Your task to perform on an android device: Go to battery settings Image 0: 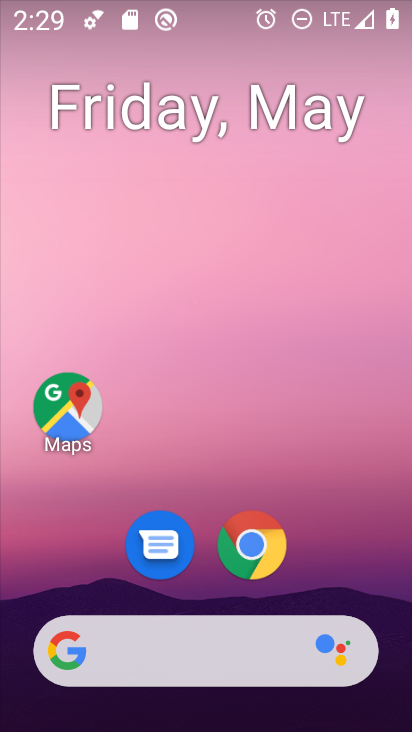
Step 0: drag from (332, 571) to (289, 248)
Your task to perform on an android device: Go to battery settings Image 1: 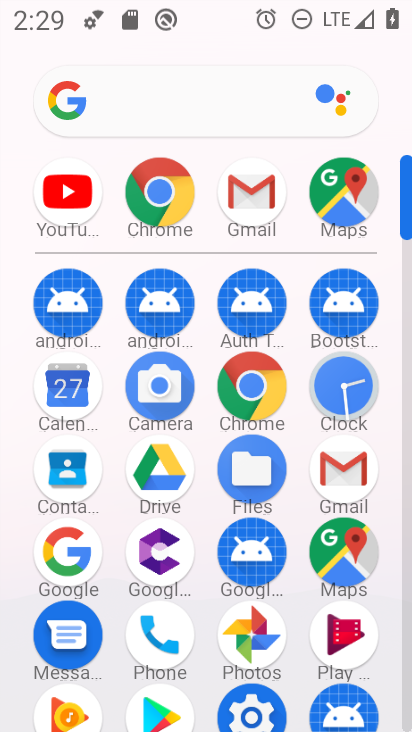
Step 1: click (255, 699)
Your task to perform on an android device: Go to battery settings Image 2: 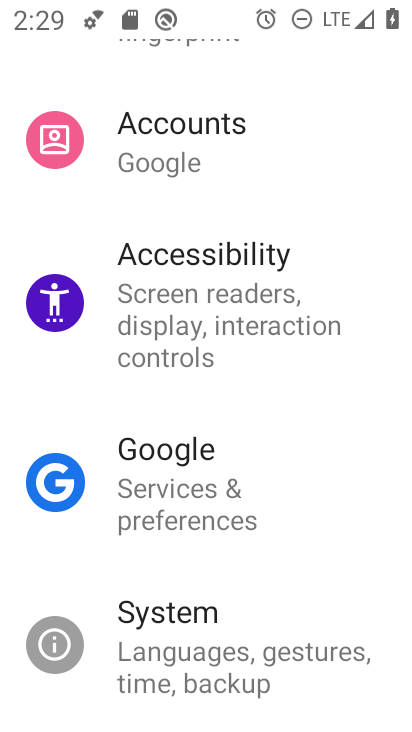
Step 2: drag from (244, 201) to (277, 589)
Your task to perform on an android device: Go to battery settings Image 3: 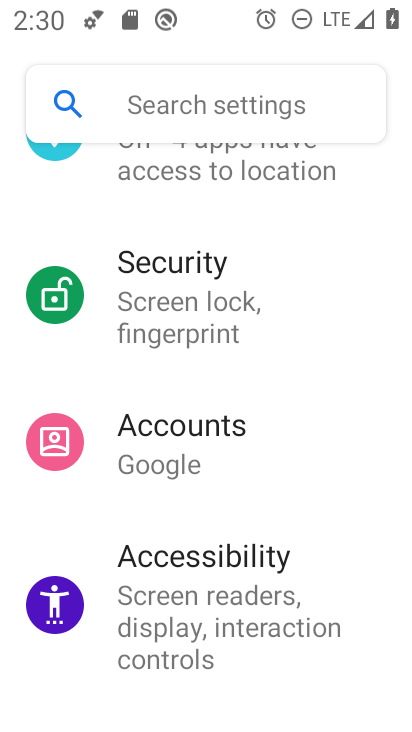
Step 3: drag from (208, 259) to (206, 593)
Your task to perform on an android device: Go to battery settings Image 4: 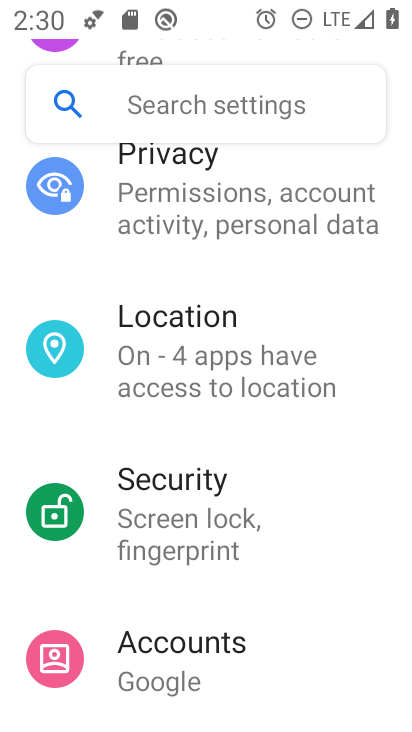
Step 4: drag from (196, 230) to (226, 634)
Your task to perform on an android device: Go to battery settings Image 5: 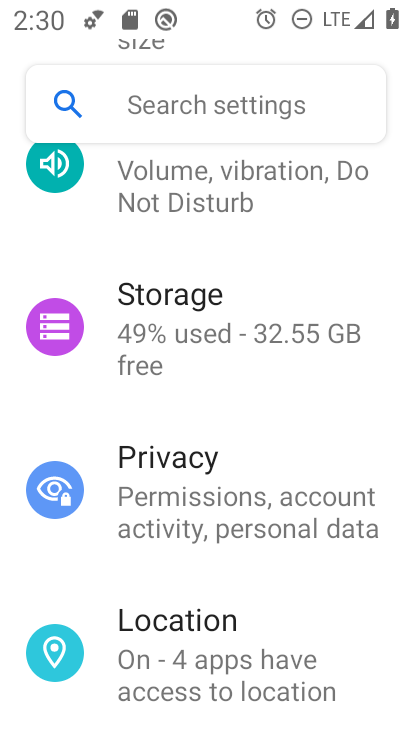
Step 5: drag from (219, 280) to (257, 628)
Your task to perform on an android device: Go to battery settings Image 6: 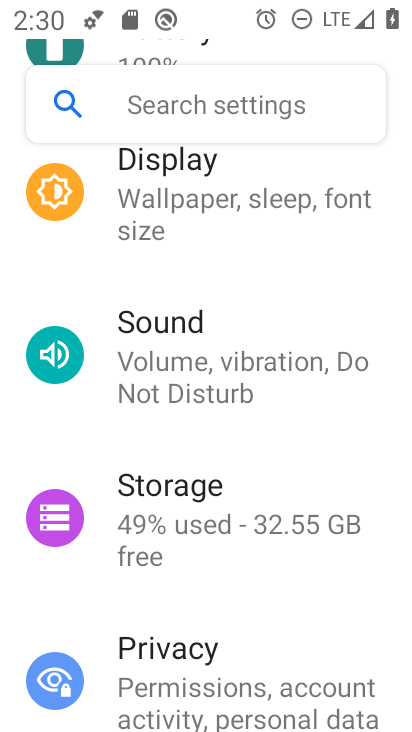
Step 6: drag from (230, 257) to (235, 625)
Your task to perform on an android device: Go to battery settings Image 7: 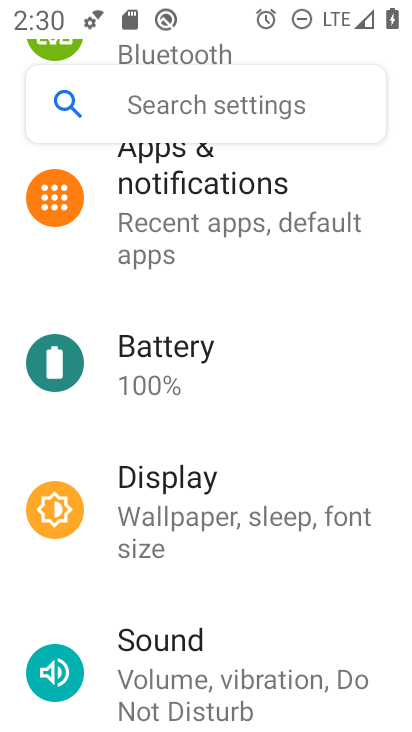
Step 7: drag from (183, 194) to (186, 526)
Your task to perform on an android device: Go to battery settings Image 8: 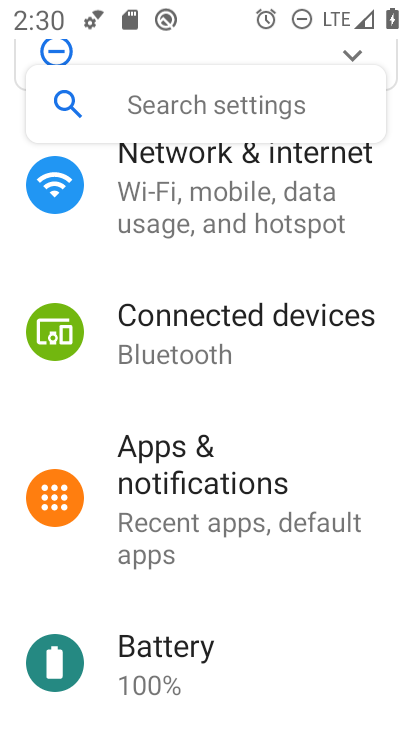
Step 8: click (181, 658)
Your task to perform on an android device: Go to battery settings Image 9: 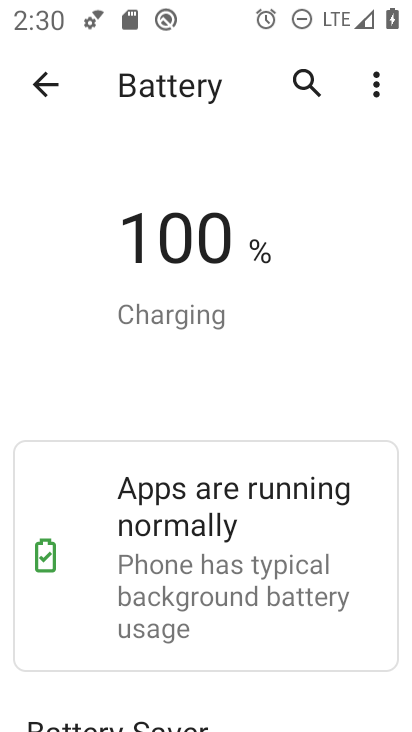
Step 9: task complete